Your task to perform on an android device: Do I have any events tomorrow? Image 0: 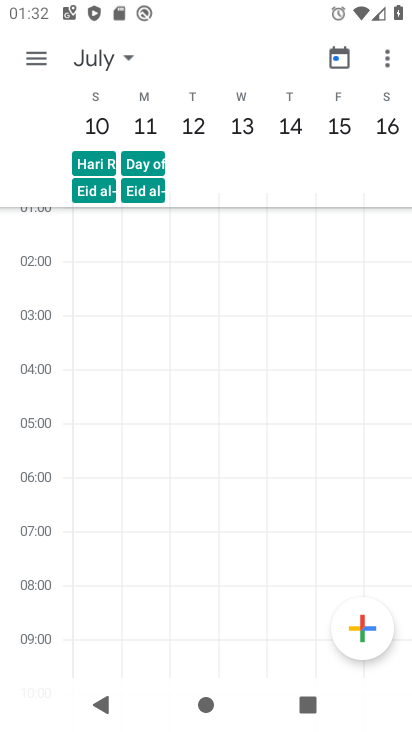
Step 0: press home button
Your task to perform on an android device: Do I have any events tomorrow? Image 1: 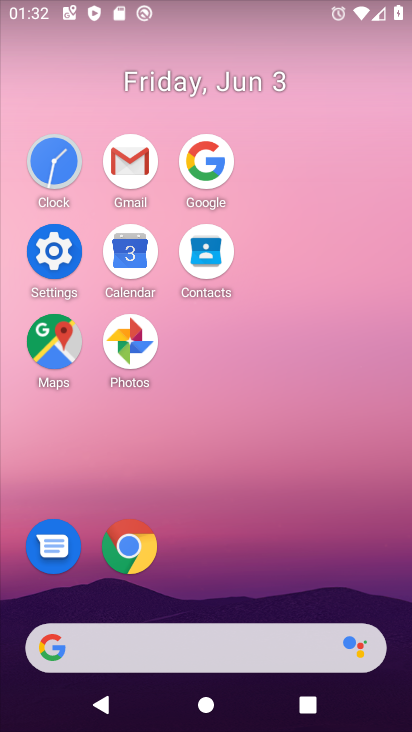
Step 1: click (145, 260)
Your task to perform on an android device: Do I have any events tomorrow? Image 2: 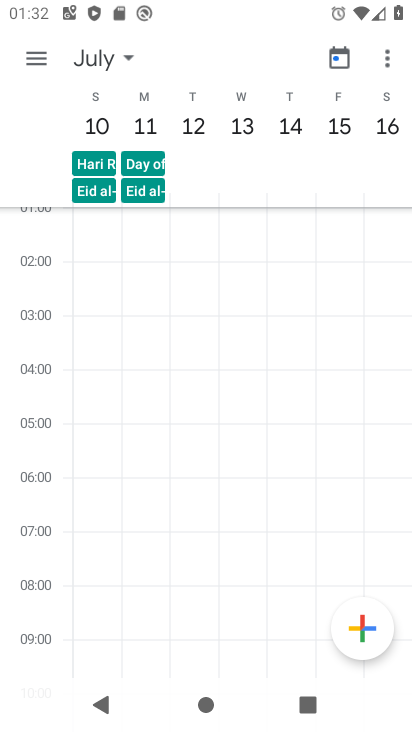
Step 2: drag from (104, 114) to (403, 139)
Your task to perform on an android device: Do I have any events tomorrow? Image 3: 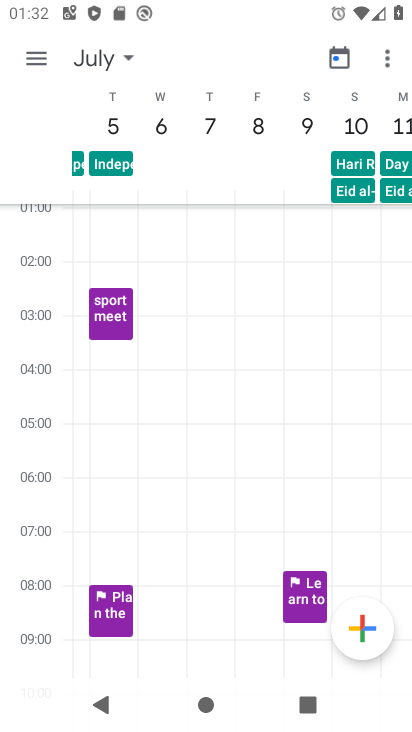
Step 3: drag from (140, 121) to (394, 151)
Your task to perform on an android device: Do I have any events tomorrow? Image 4: 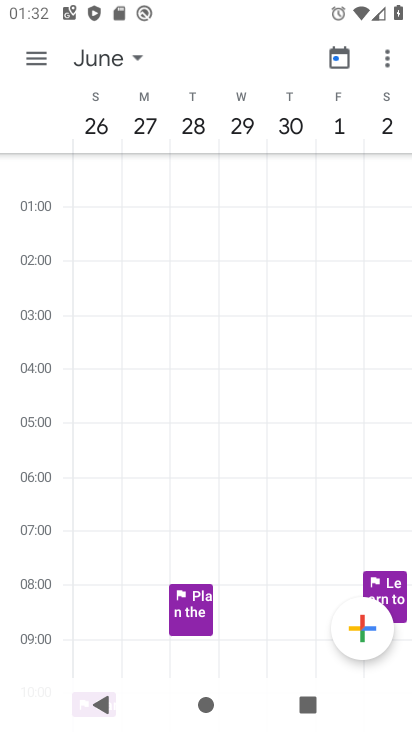
Step 4: click (384, 127)
Your task to perform on an android device: Do I have any events tomorrow? Image 5: 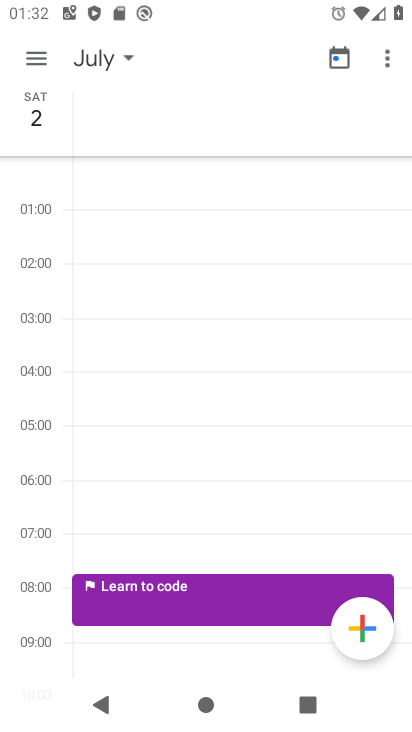
Step 5: task complete